Your task to perform on an android device: show emergency info Image 0: 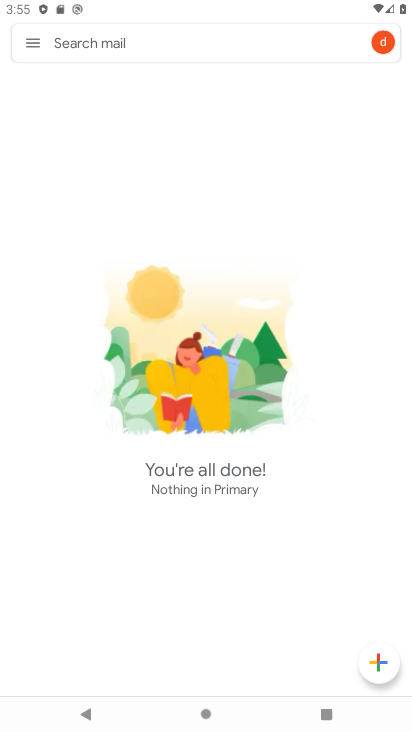
Step 0: press home button
Your task to perform on an android device: show emergency info Image 1: 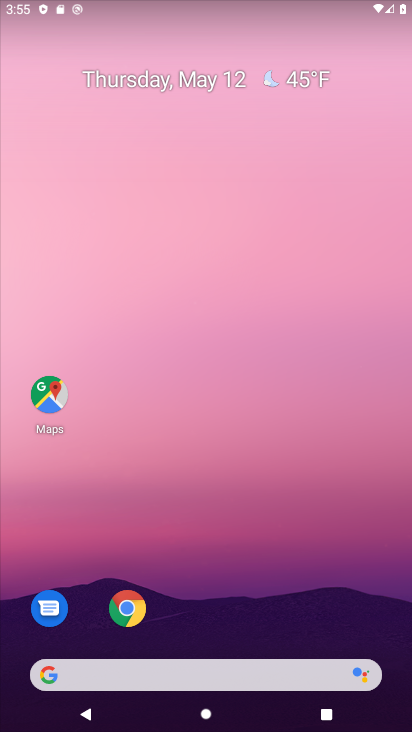
Step 1: drag from (226, 627) to (223, 11)
Your task to perform on an android device: show emergency info Image 2: 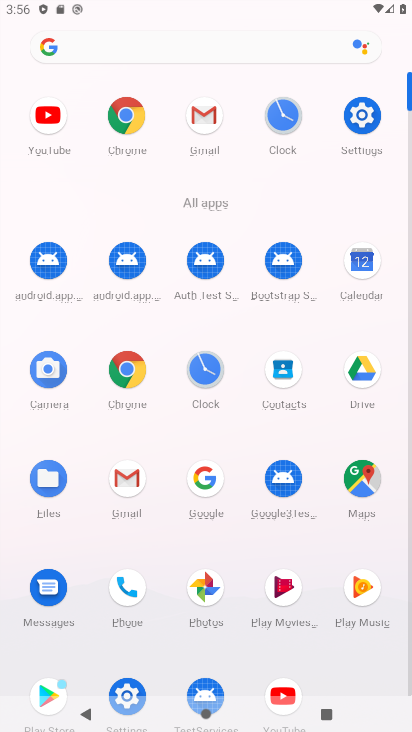
Step 2: click (353, 121)
Your task to perform on an android device: show emergency info Image 3: 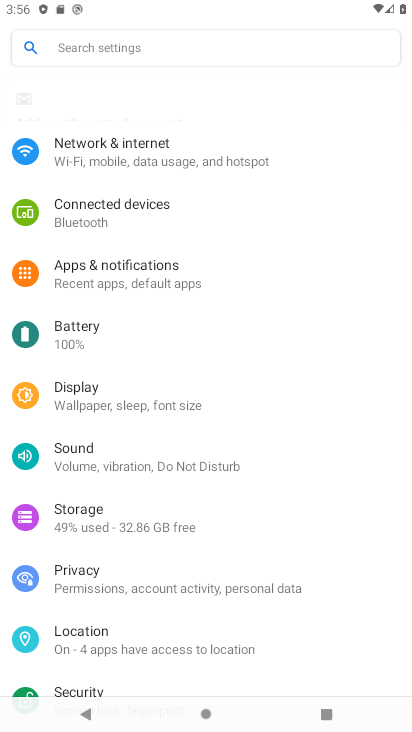
Step 3: drag from (267, 453) to (276, 92)
Your task to perform on an android device: show emergency info Image 4: 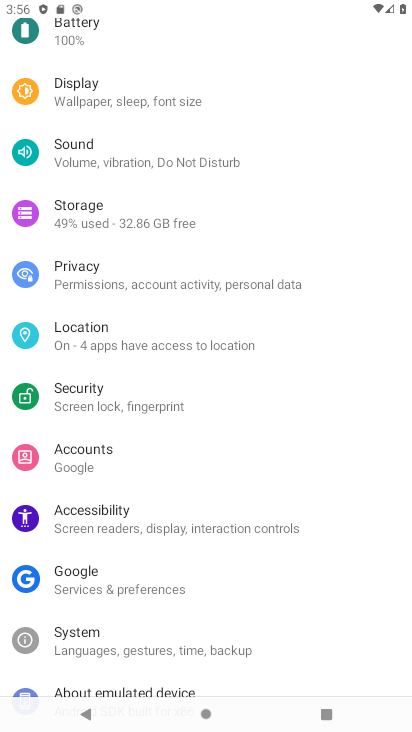
Step 4: drag from (248, 663) to (224, 417)
Your task to perform on an android device: show emergency info Image 5: 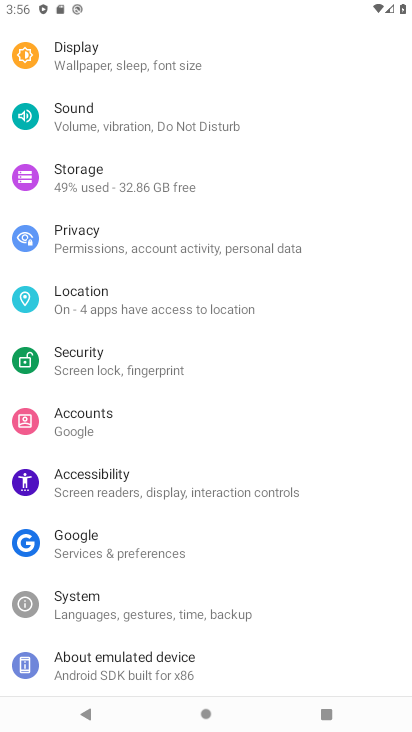
Step 5: click (217, 666)
Your task to perform on an android device: show emergency info Image 6: 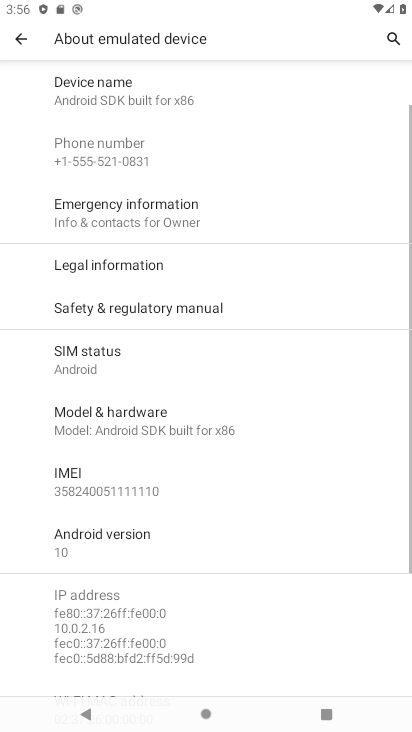
Step 6: click (198, 212)
Your task to perform on an android device: show emergency info Image 7: 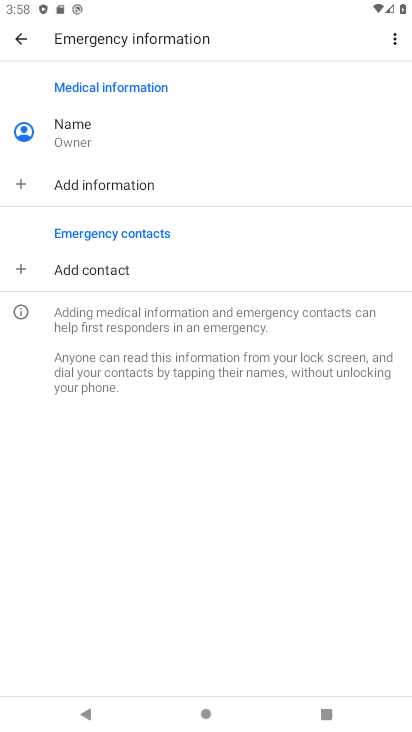
Step 7: task complete